Your task to perform on an android device: What are the best selling refrigerators at Home Depot? Image 0: 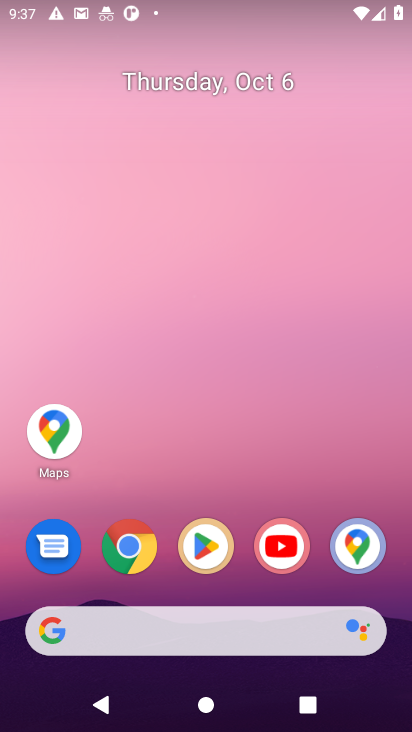
Step 0: click (125, 563)
Your task to perform on an android device: What are the best selling refrigerators at Home Depot? Image 1: 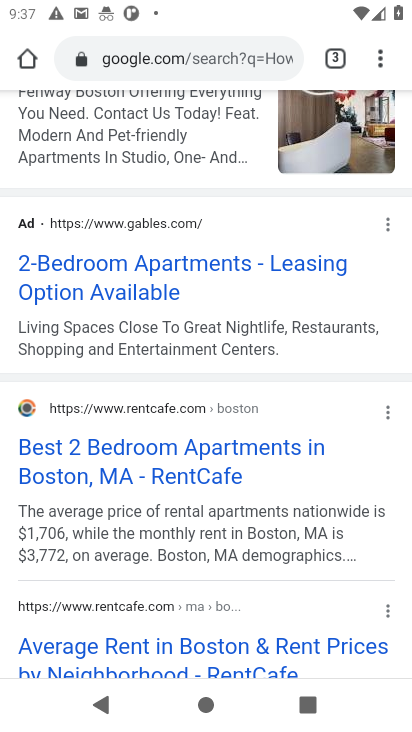
Step 1: click (209, 39)
Your task to perform on an android device: What are the best selling refrigerators at Home Depot? Image 2: 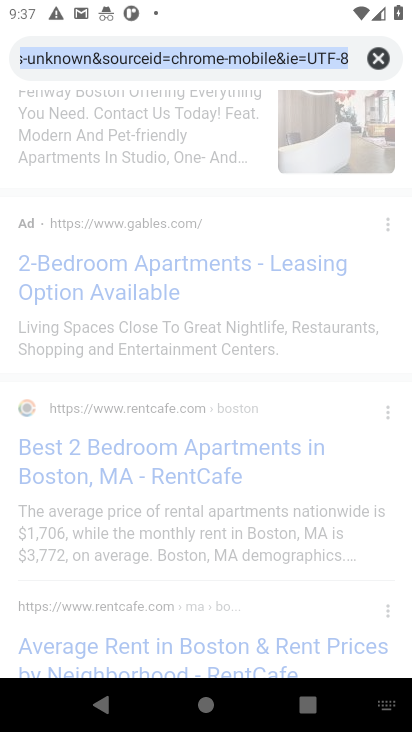
Step 2: click (370, 59)
Your task to perform on an android device: What are the best selling refrigerators at Home Depot? Image 3: 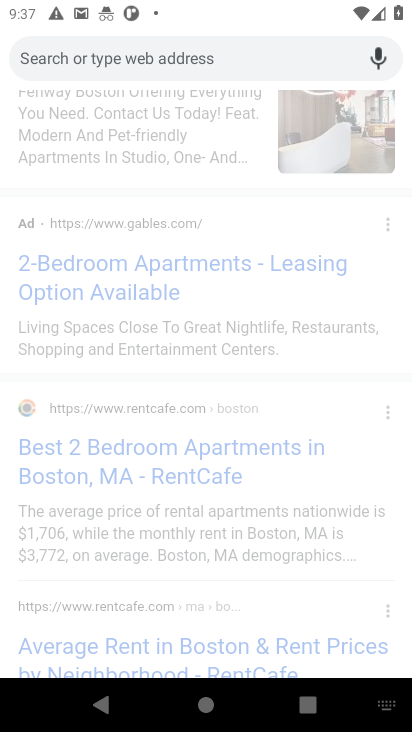
Step 3: type "home depot"
Your task to perform on an android device: What are the best selling refrigerators at Home Depot? Image 4: 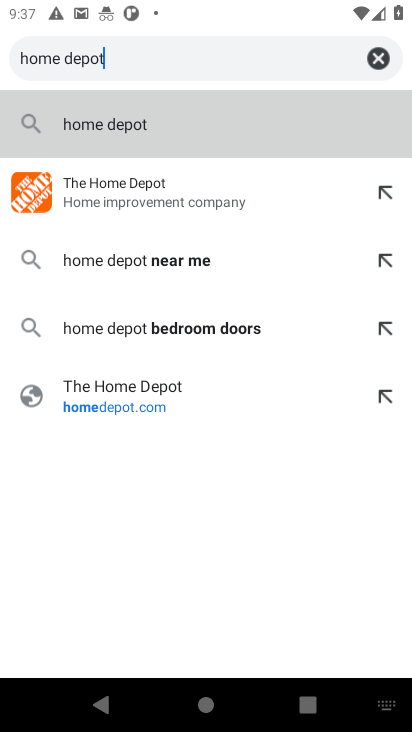
Step 4: click (100, 180)
Your task to perform on an android device: What are the best selling refrigerators at Home Depot? Image 5: 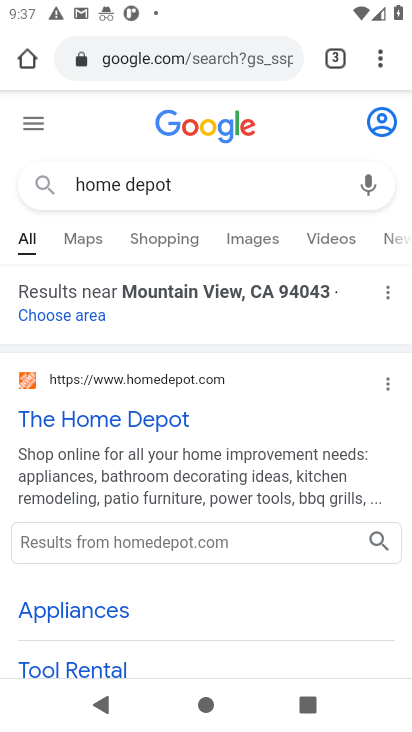
Step 5: click (93, 411)
Your task to perform on an android device: What are the best selling refrigerators at Home Depot? Image 6: 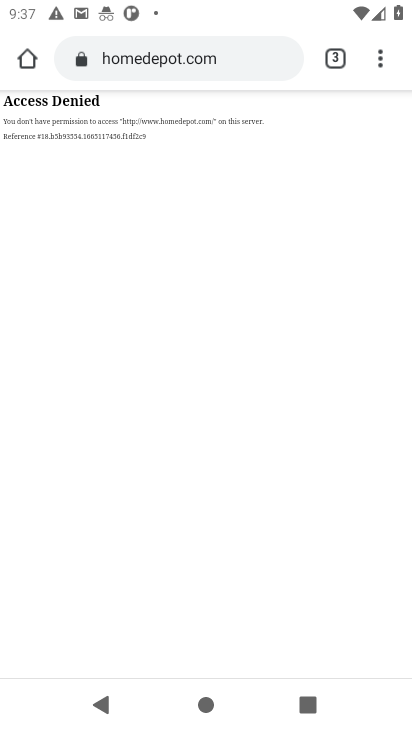
Step 6: drag from (134, 104) to (147, 405)
Your task to perform on an android device: What are the best selling refrigerators at Home Depot? Image 7: 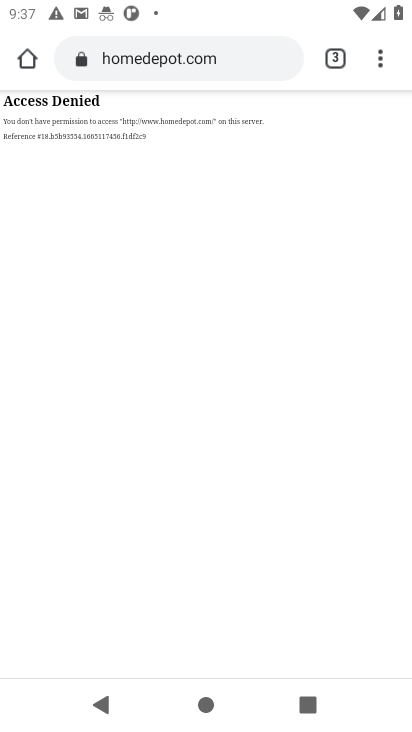
Step 7: click (217, 60)
Your task to perform on an android device: What are the best selling refrigerators at Home Depot? Image 8: 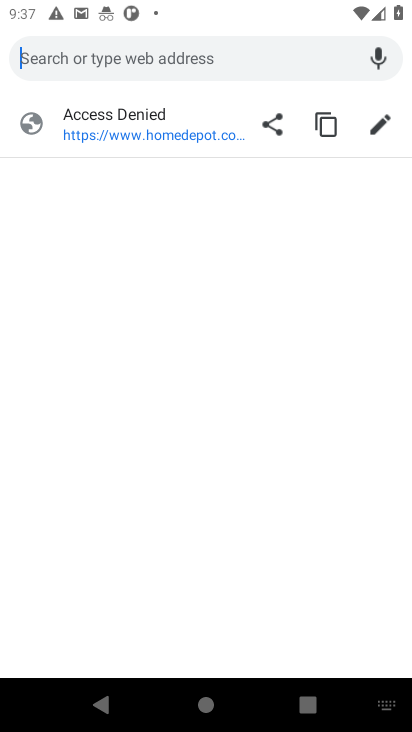
Step 8: type "home depot"
Your task to perform on an android device: What are the best selling refrigerators at Home Depot? Image 9: 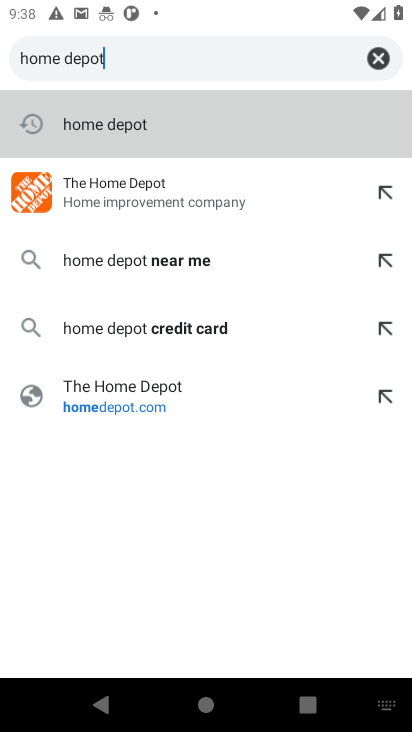
Step 9: click (158, 202)
Your task to perform on an android device: What are the best selling refrigerators at Home Depot? Image 10: 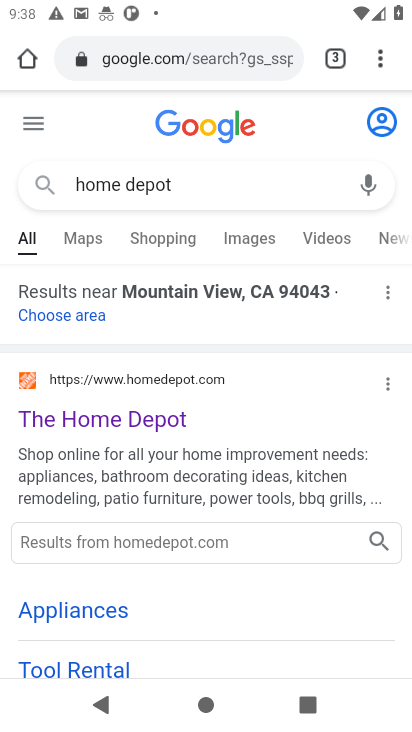
Step 10: click (93, 430)
Your task to perform on an android device: What are the best selling refrigerators at Home Depot? Image 11: 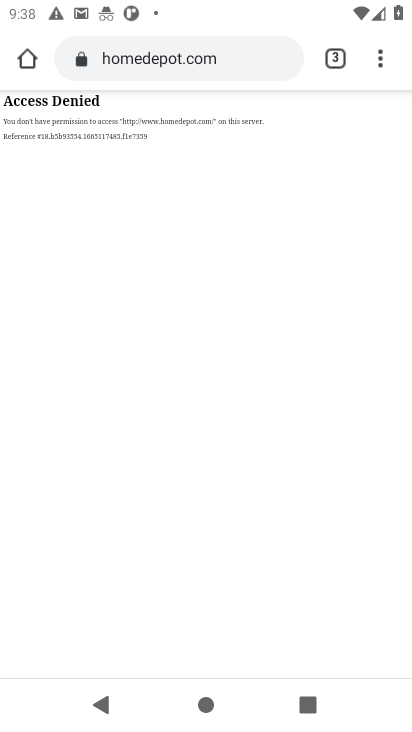
Step 11: task complete